Your task to perform on an android device: star an email in the gmail app Image 0: 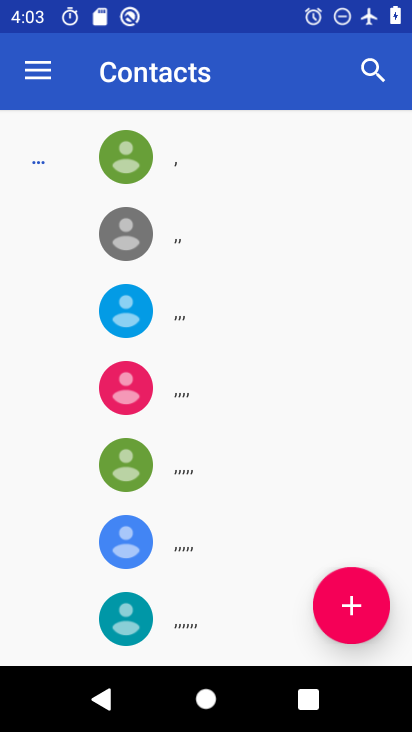
Step 0: press home button
Your task to perform on an android device: star an email in the gmail app Image 1: 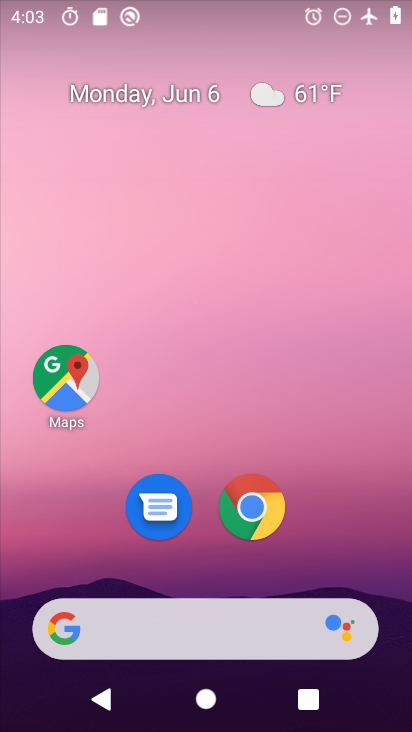
Step 1: drag from (203, 562) to (217, 210)
Your task to perform on an android device: star an email in the gmail app Image 2: 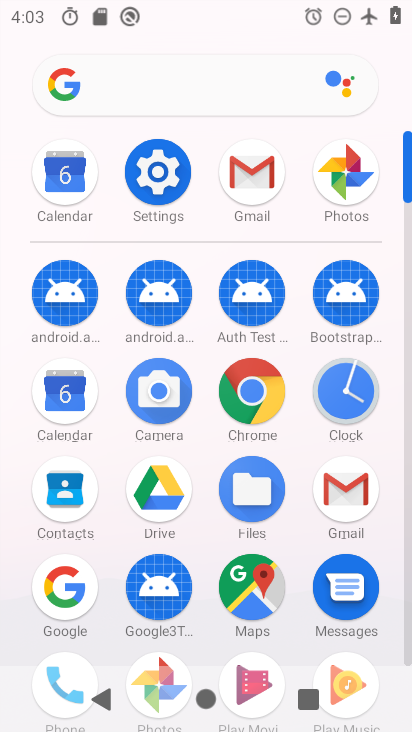
Step 2: click (253, 198)
Your task to perform on an android device: star an email in the gmail app Image 3: 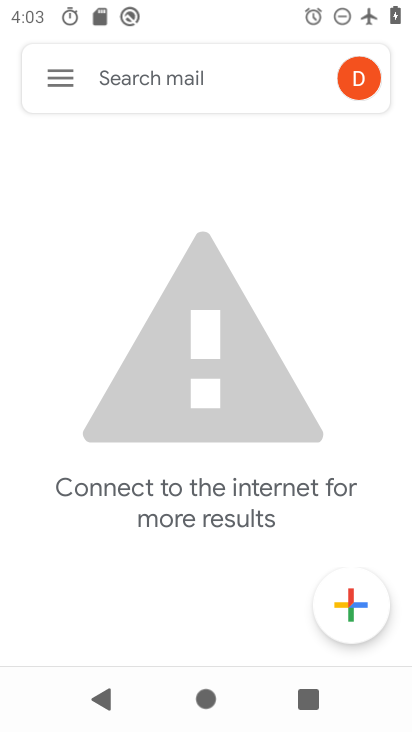
Step 3: click (68, 73)
Your task to perform on an android device: star an email in the gmail app Image 4: 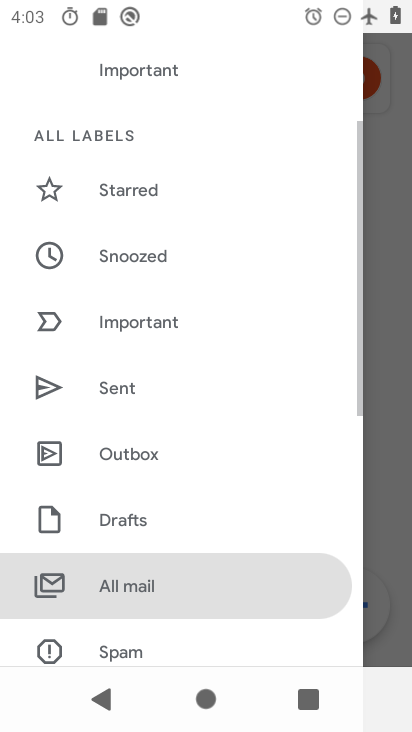
Step 4: click (155, 581)
Your task to perform on an android device: star an email in the gmail app Image 5: 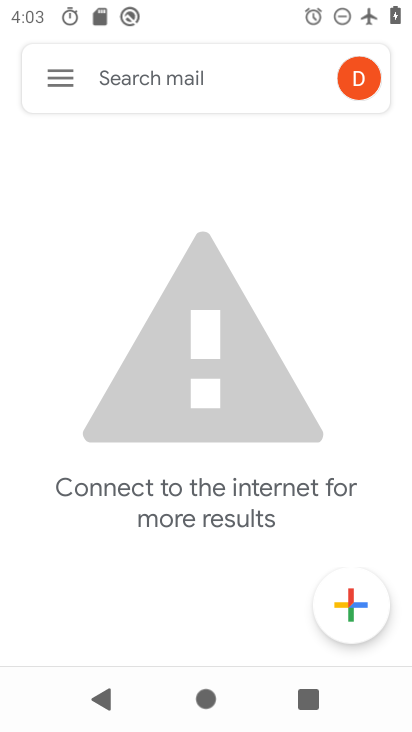
Step 5: click (74, 69)
Your task to perform on an android device: star an email in the gmail app Image 6: 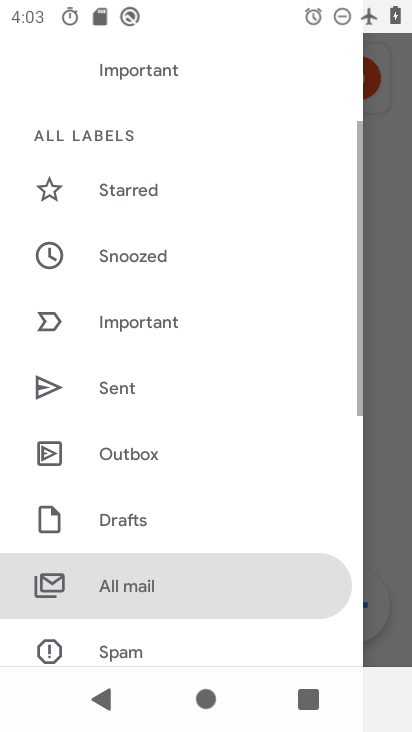
Step 6: click (155, 575)
Your task to perform on an android device: star an email in the gmail app Image 7: 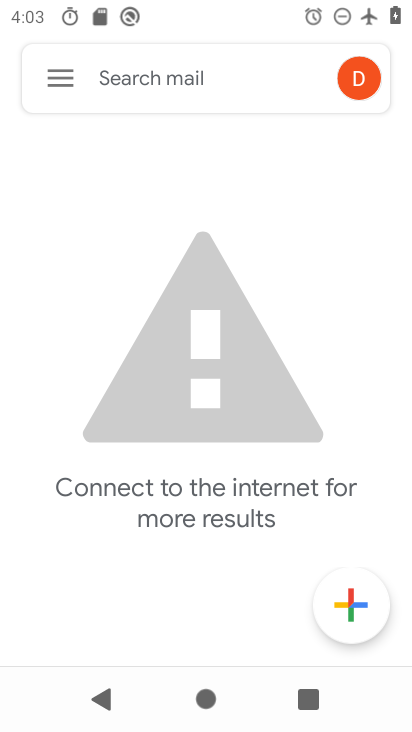
Step 7: task complete